Your task to perform on an android device: open the mobile data screen to see how much data has been used Image 0: 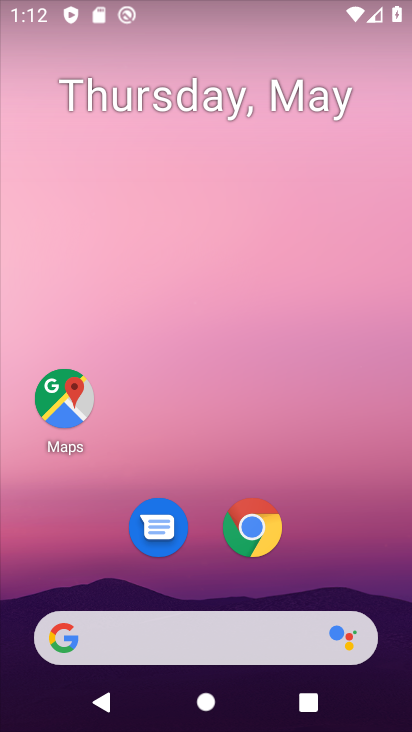
Step 0: drag from (200, 2) to (290, 695)
Your task to perform on an android device: open the mobile data screen to see how much data has been used Image 1: 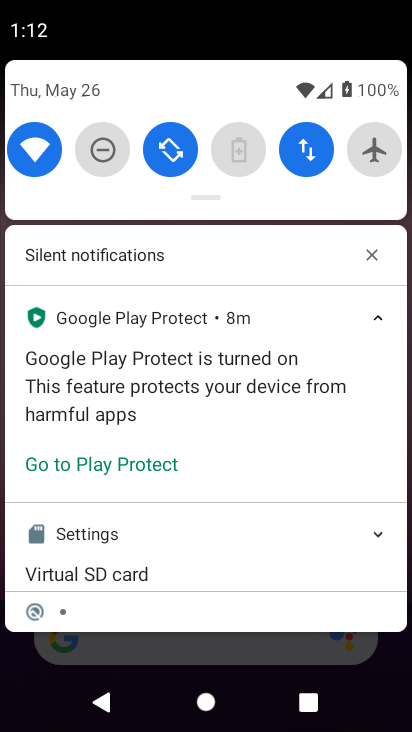
Step 1: click (304, 152)
Your task to perform on an android device: open the mobile data screen to see how much data has been used Image 2: 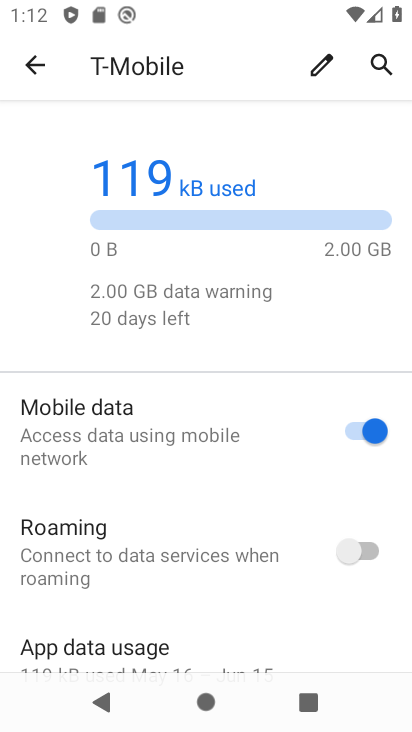
Step 2: task complete